Your task to perform on an android device: Turn on the flashlight Image 0: 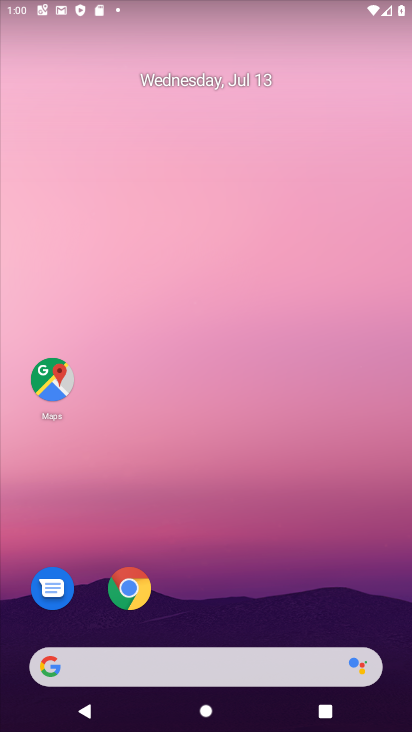
Step 0: drag from (260, 6) to (240, 371)
Your task to perform on an android device: Turn on the flashlight Image 1: 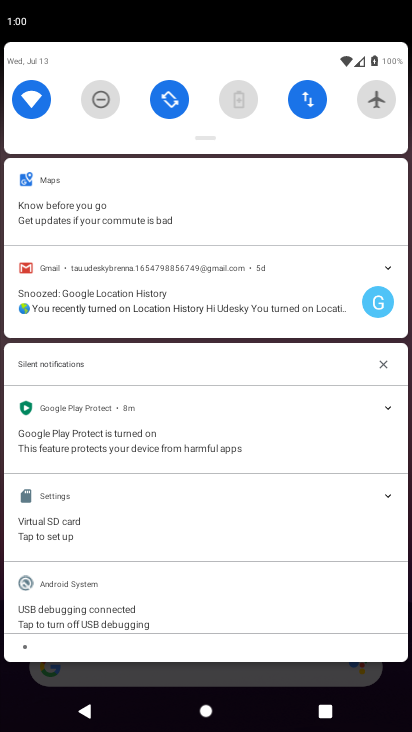
Step 1: drag from (234, 76) to (255, 467)
Your task to perform on an android device: Turn on the flashlight Image 2: 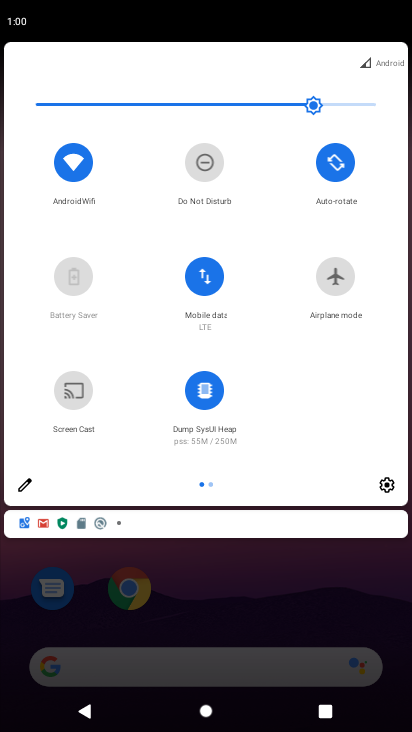
Step 2: drag from (317, 312) to (16, 300)
Your task to perform on an android device: Turn on the flashlight Image 3: 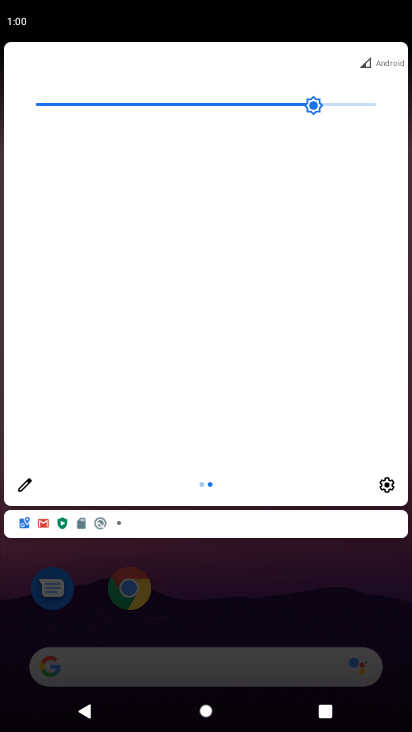
Step 3: click (29, 481)
Your task to perform on an android device: Turn on the flashlight Image 4: 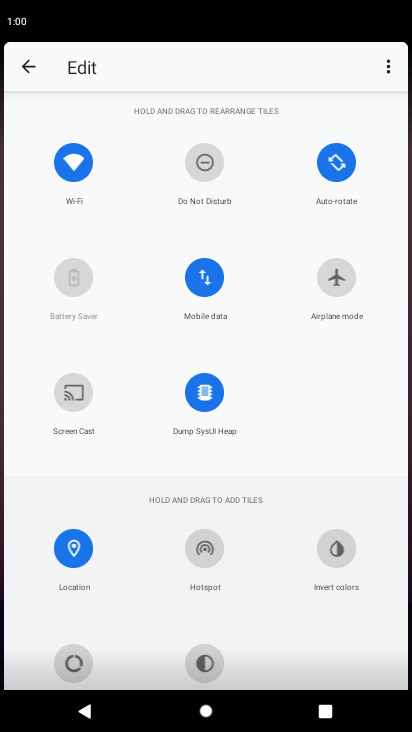
Step 4: task complete